Your task to perform on an android device: turn off notifications in google photos Image 0: 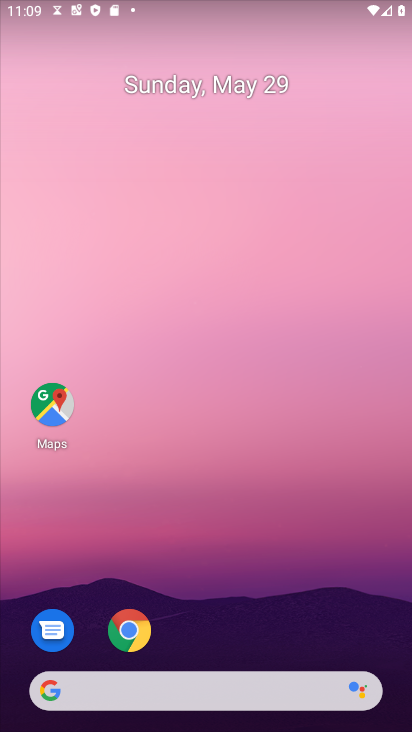
Step 0: click (39, 417)
Your task to perform on an android device: turn off notifications in google photos Image 1: 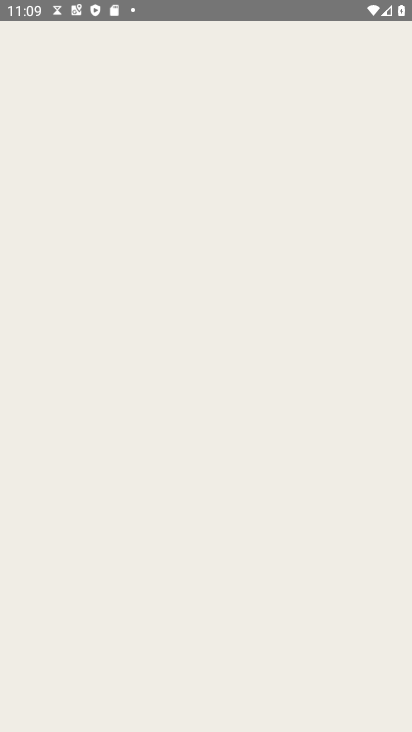
Step 1: press home button
Your task to perform on an android device: turn off notifications in google photos Image 2: 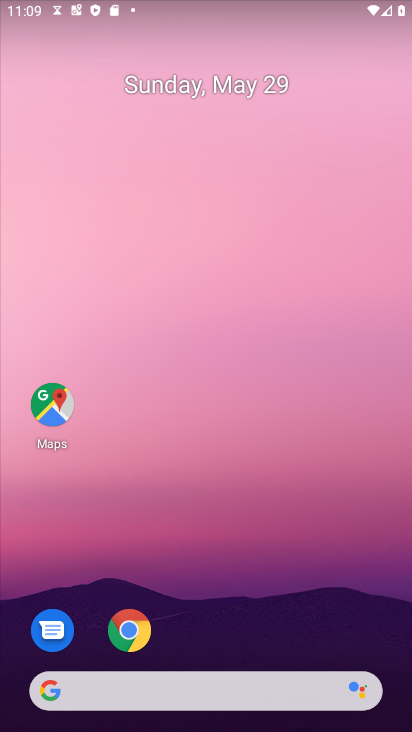
Step 2: drag from (281, 640) to (310, 123)
Your task to perform on an android device: turn off notifications in google photos Image 3: 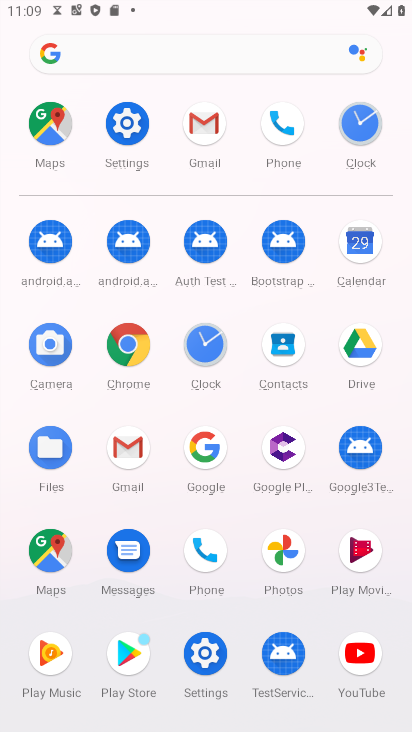
Step 3: click (307, 555)
Your task to perform on an android device: turn off notifications in google photos Image 4: 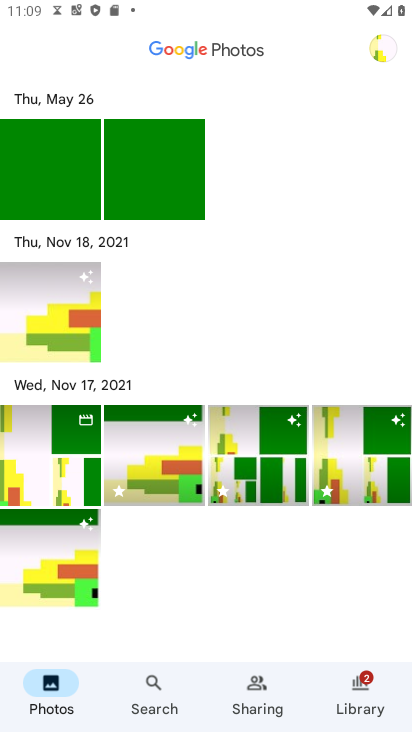
Step 4: click (387, 59)
Your task to perform on an android device: turn off notifications in google photos Image 5: 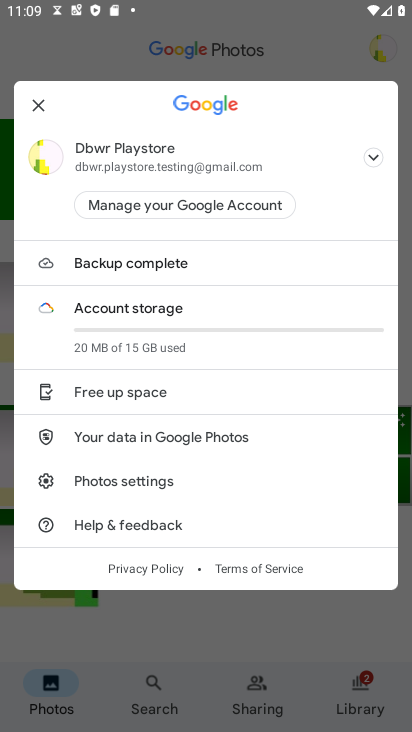
Step 5: click (141, 488)
Your task to perform on an android device: turn off notifications in google photos Image 6: 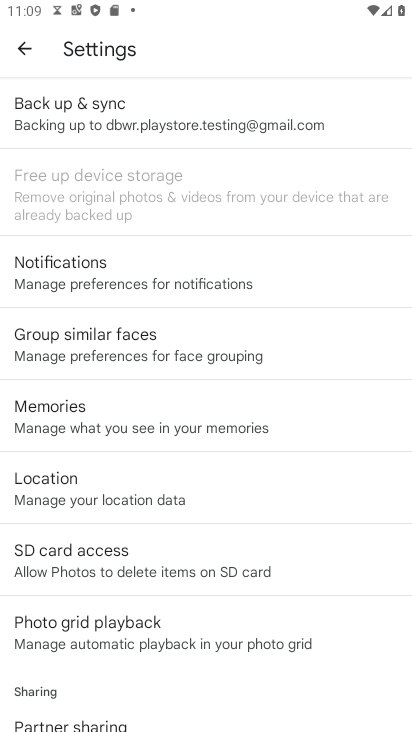
Step 6: click (139, 263)
Your task to perform on an android device: turn off notifications in google photos Image 7: 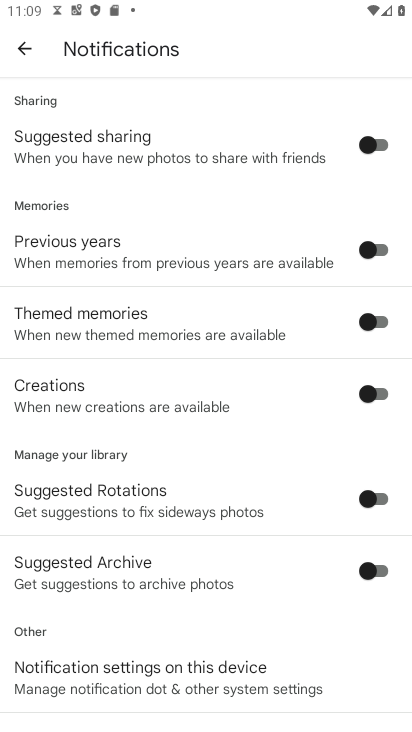
Step 7: drag from (249, 557) to (261, 108)
Your task to perform on an android device: turn off notifications in google photos Image 8: 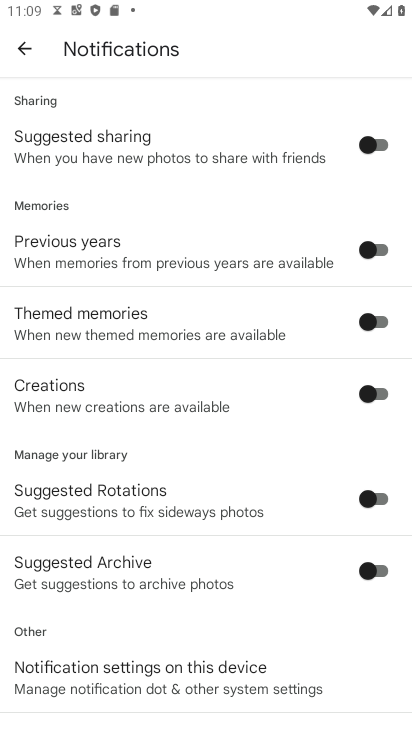
Step 8: click (393, 565)
Your task to perform on an android device: turn off notifications in google photos Image 9: 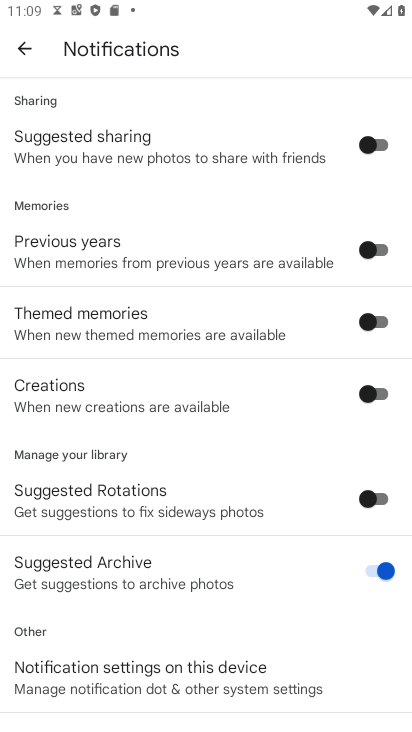
Step 9: click (387, 549)
Your task to perform on an android device: turn off notifications in google photos Image 10: 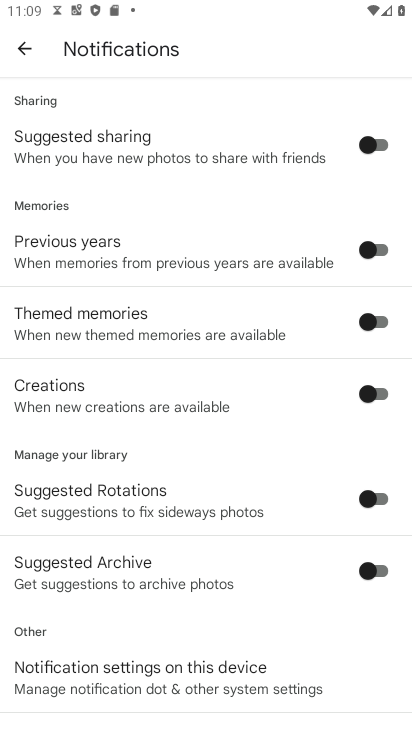
Step 10: click (265, 666)
Your task to perform on an android device: turn off notifications in google photos Image 11: 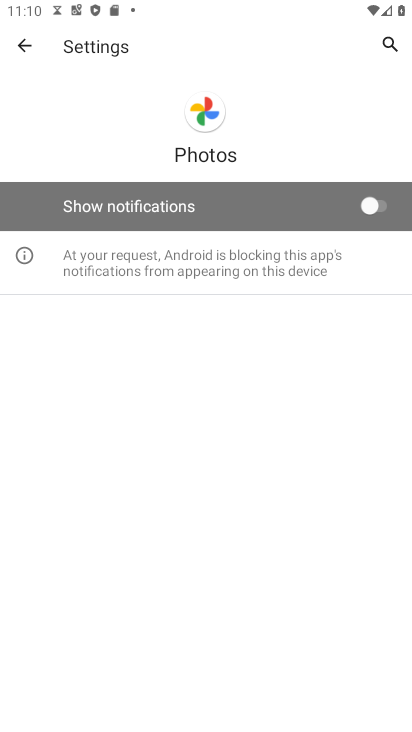
Step 11: task complete